Your task to perform on an android device: turn off airplane mode Image 0: 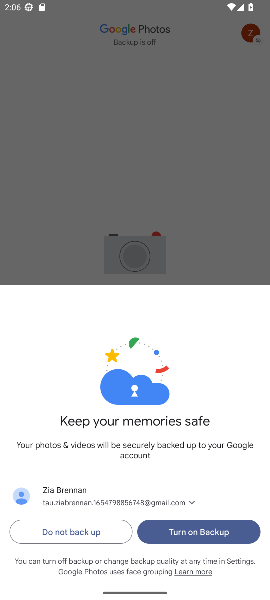
Step 0: press home button
Your task to perform on an android device: turn off airplane mode Image 1: 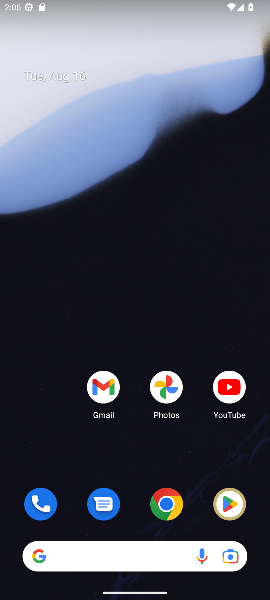
Step 1: drag from (129, 488) to (132, 180)
Your task to perform on an android device: turn off airplane mode Image 2: 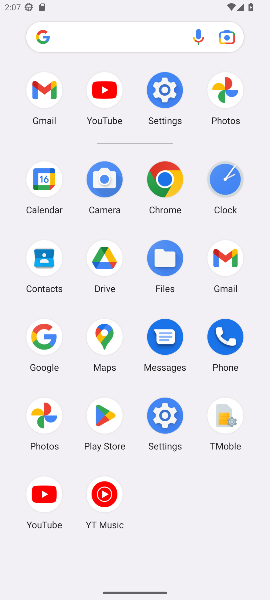
Step 2: click (169, 89)
Your task to perform on an android device: turn off airplane mode Image 3: 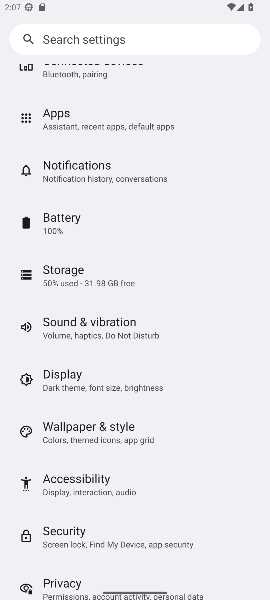
Step 3: drag from (173, 100) to (110, 344)
Your task to perform on an android device: turn off airplane mode Image 4: 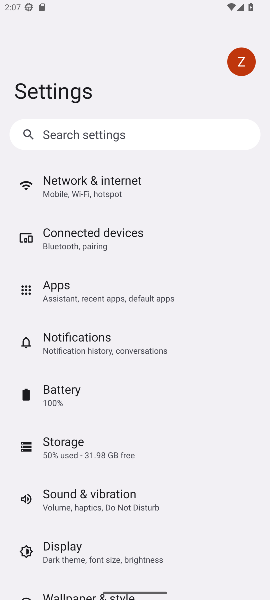
Step 4: click (91, 176)
Your task to perform on an android device: turn off airplane mode Image 5: 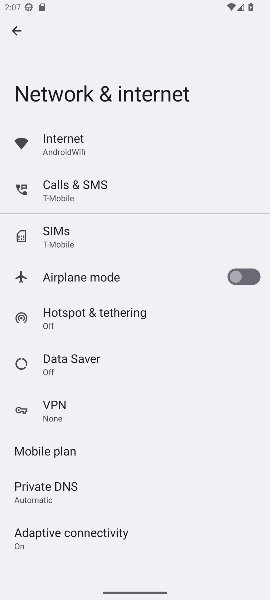
Step 5: task complete